Your task to perform on an android device: Go to Google maps Image 0: 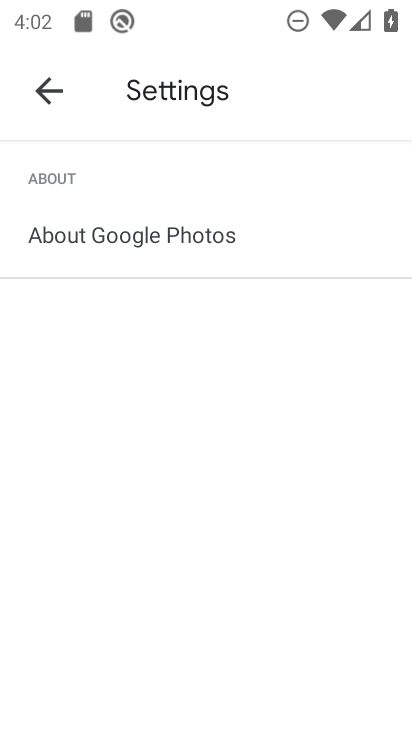
Step 0: press home button
Your task to perform on an android device: Go to Google maps Image 1: 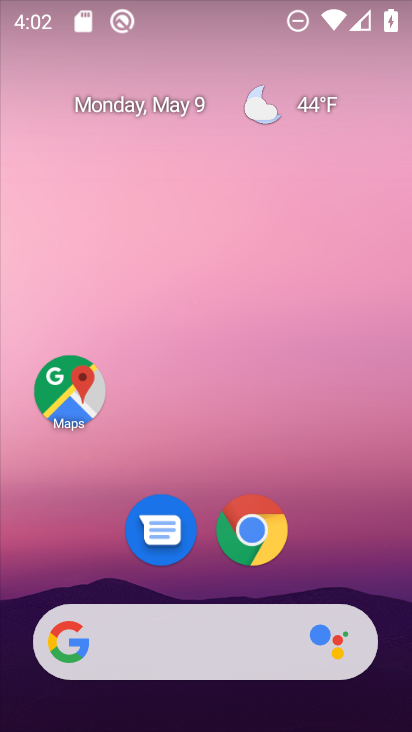
Step 1: click (70, 389)
Your task to perform on an android device: Go to Google maps Image 2: 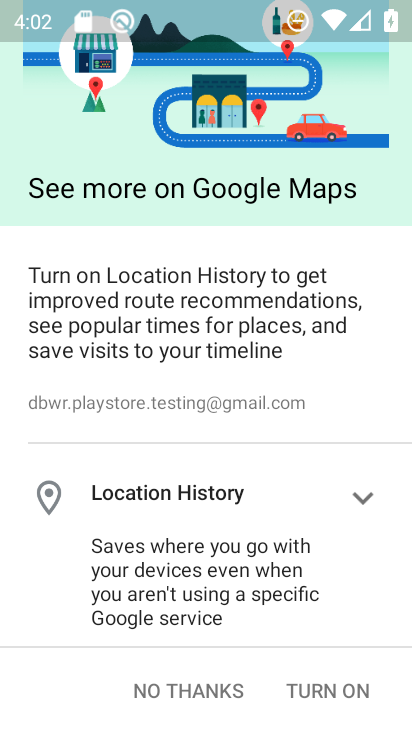
Step 2: click (335, 689)
Your task to perform on an android device: Go to Google maps Image 3: 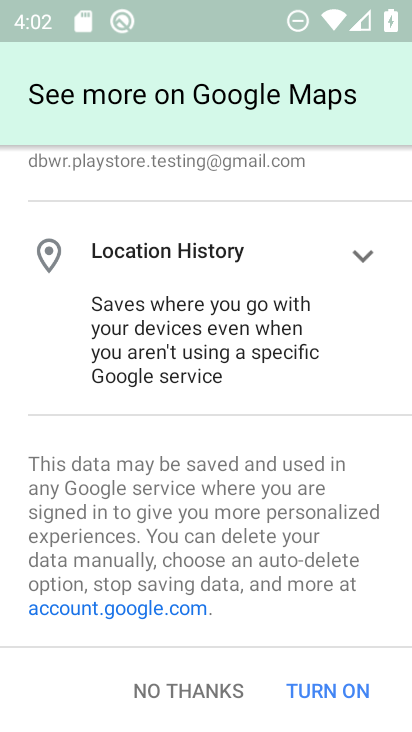
Step 3: click (320, 688)
Your task to perform on an android device: Go to Google maps Image 4: 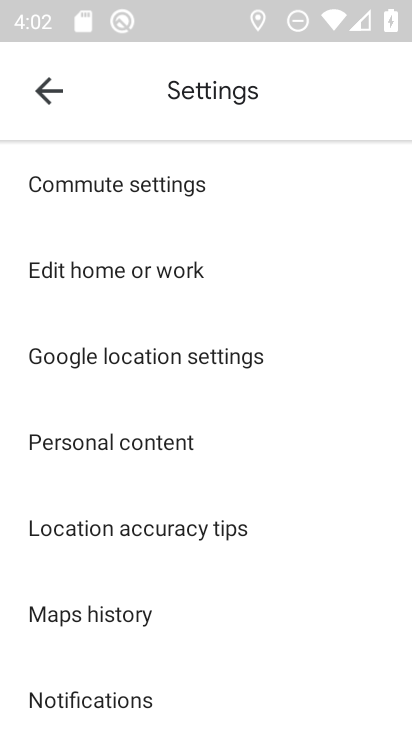
Step 4: click (45, 88)
Your task to perform on an android device: Go to Google maps Image 5: 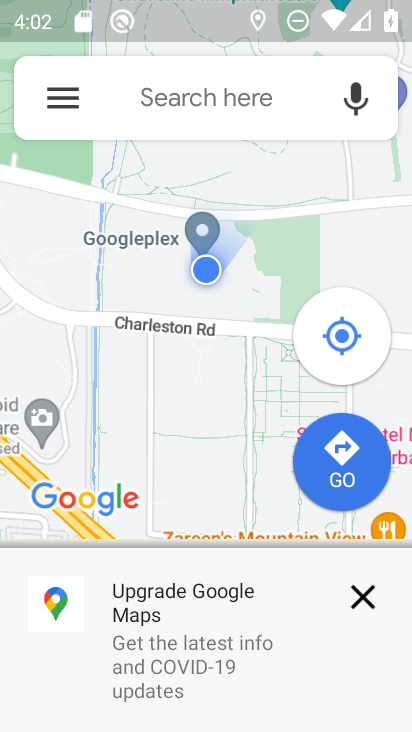
Step 5: click (352, 600)
Your task to perform on an android device: Go to Google maps Image 6: 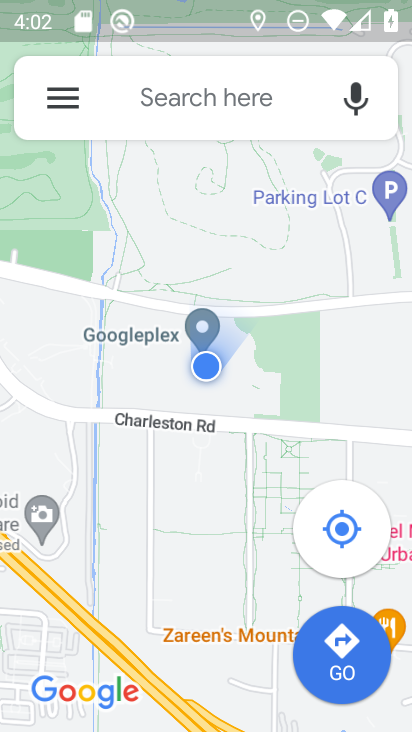
Step 6: click (355, 596)
Your task to perform on an android device: Go to Google maps Image 7: 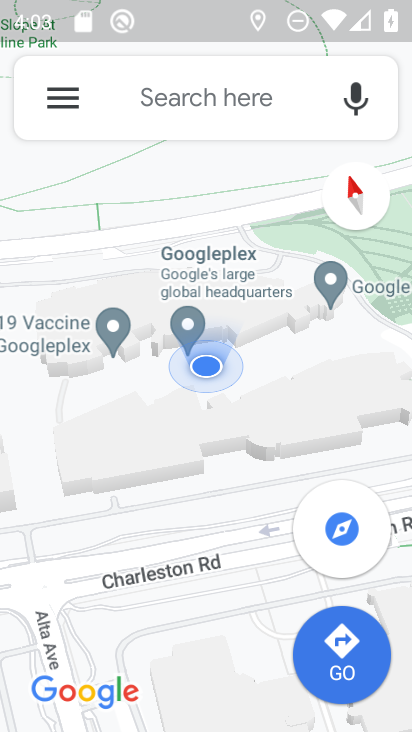
Step 7: task complete